Your task to perform on an android device: Is it going to rain tomorrow? Image 0: 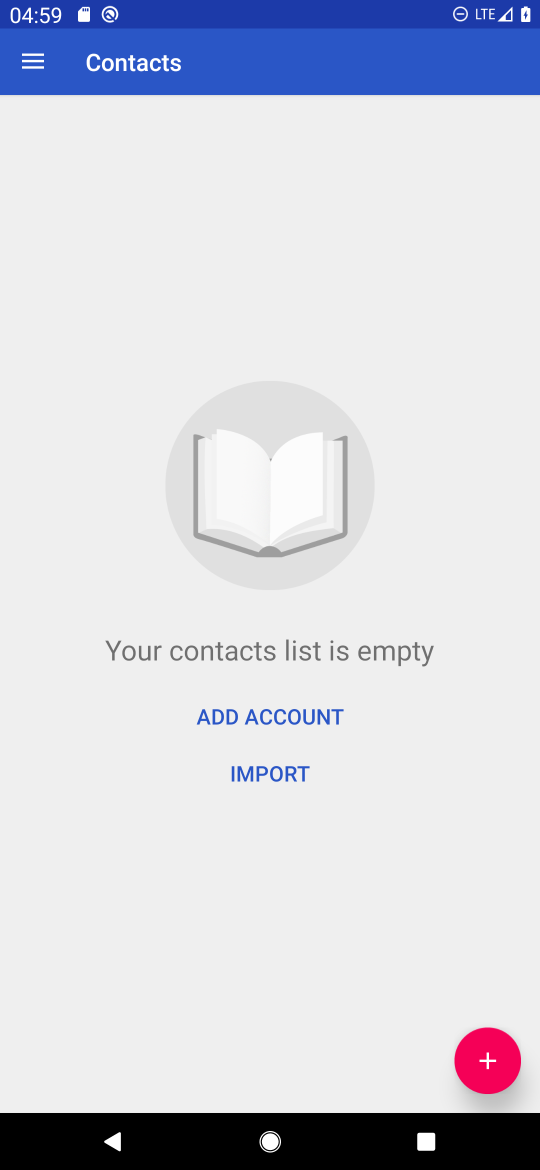
Step 0: press home button
Your task to perform on an android device: Is it going to rain tomorrow? Image 1: 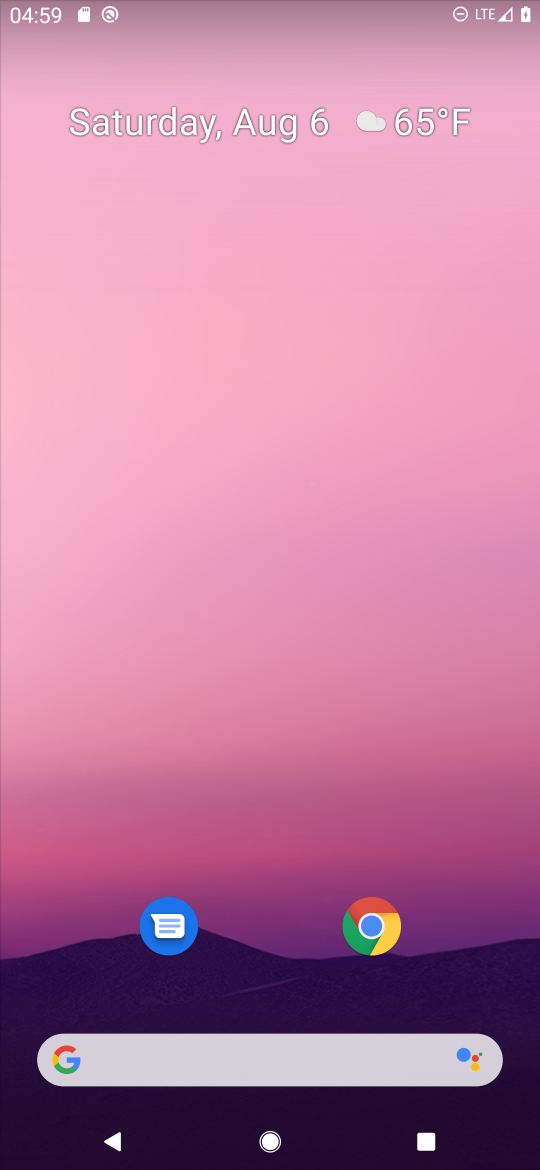
Step 1: drag from (240, 946) to (300, 321)
Your task to perform on an android device: Is it going to rain tomorrow? Image 2: 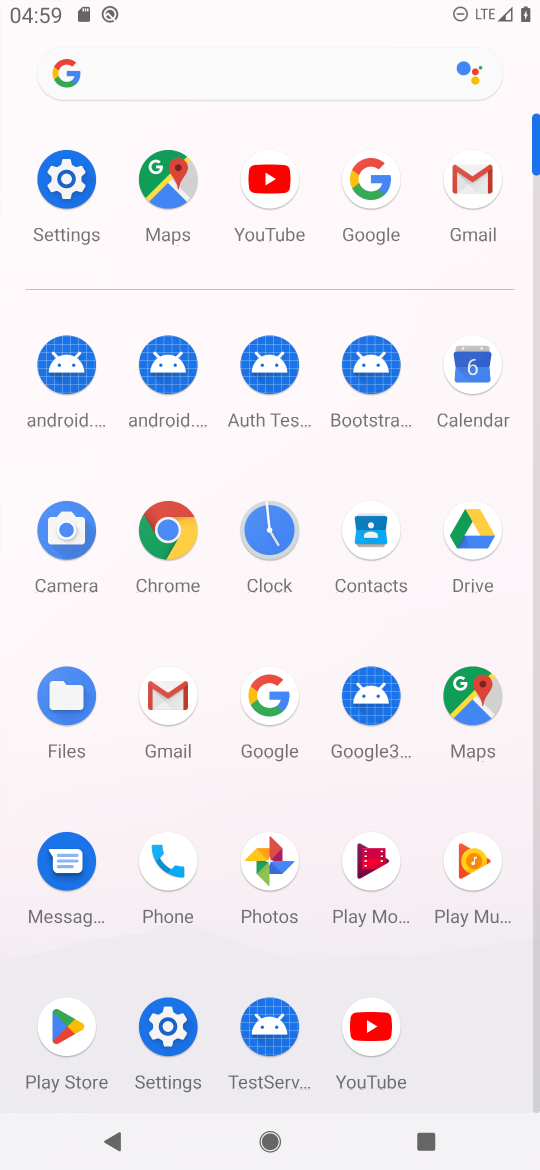
Step 2: click (276, 688)
Your task to perform on an android device: Is it going to rain tomorrow? Image 3: 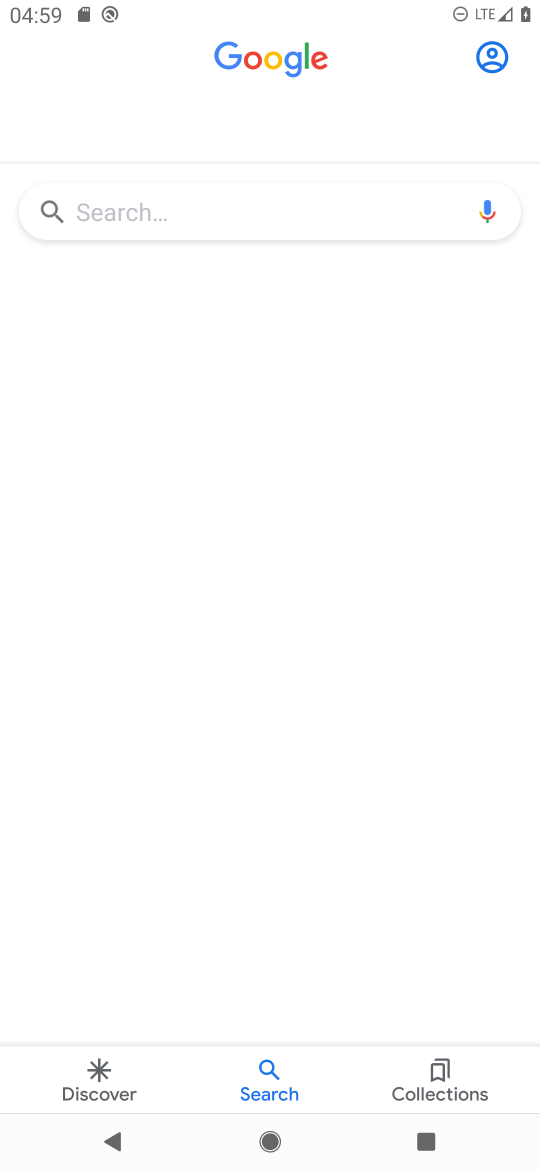
Step 3: click (252, 213)
Your task to perform on an android device: Is it going to rain tomorrow? Image 4: 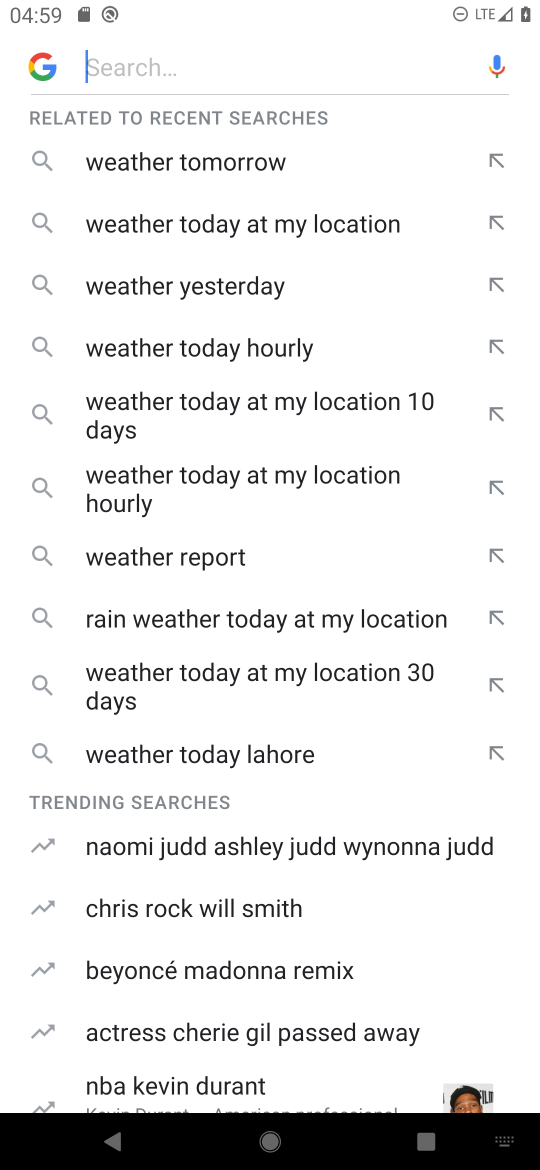
Step 4: click (206, 167)
Your task to perform on an android device: Is it going to rain tomorrow? Image 5: 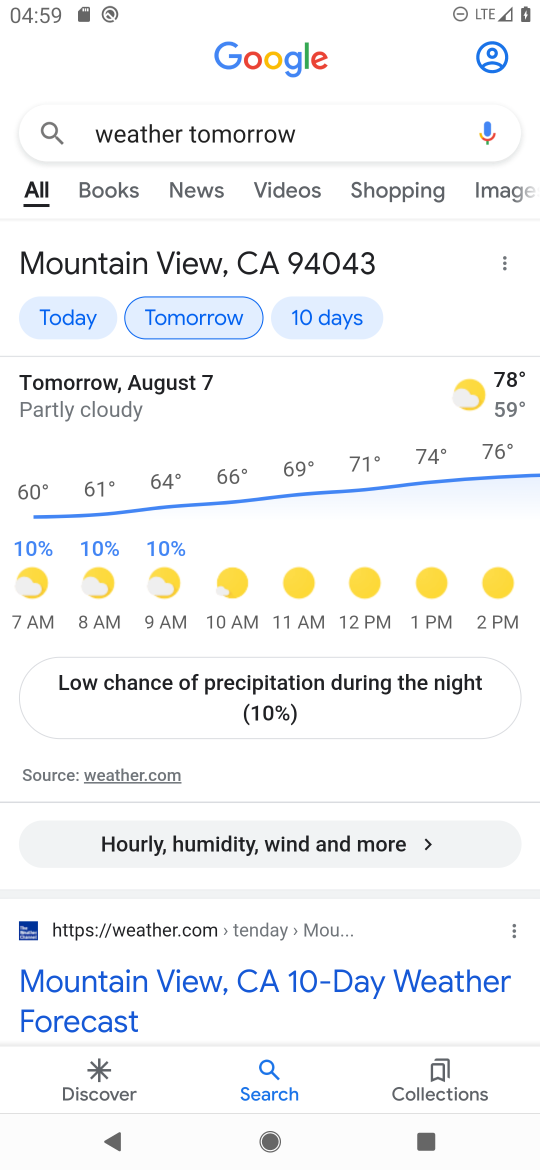
Step 5: task complete